Your task to perform on an android device: toggle pop-ups in chrome Image 0: 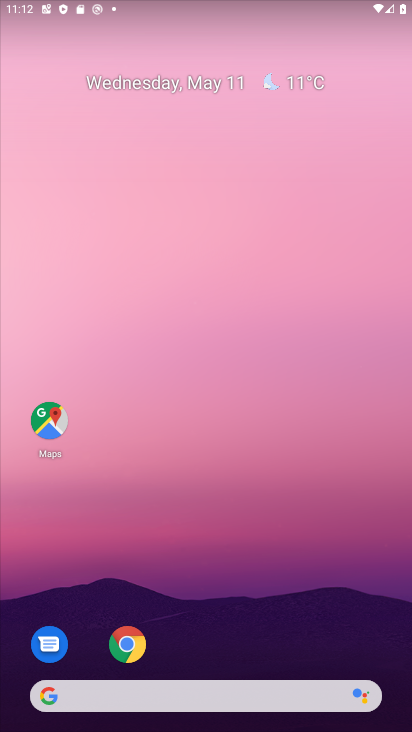
Step 0: click (207, 49)
Your task to perform on an android device: toggle pop-ups in chrome Image 1: 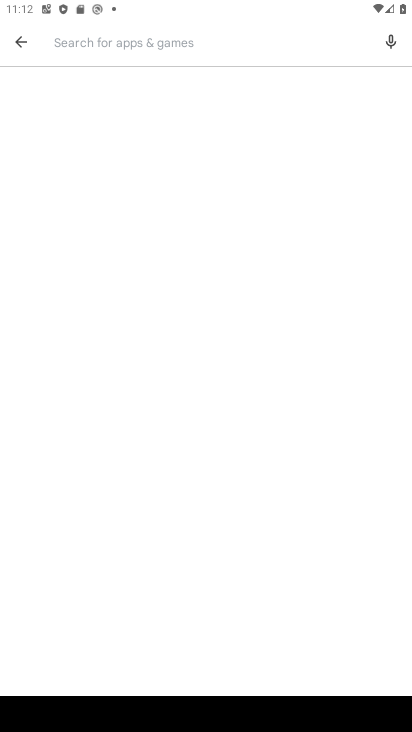
Step 1: press home button
Your task to perform on an android device: toggle pop-ups in chrome Image 2: 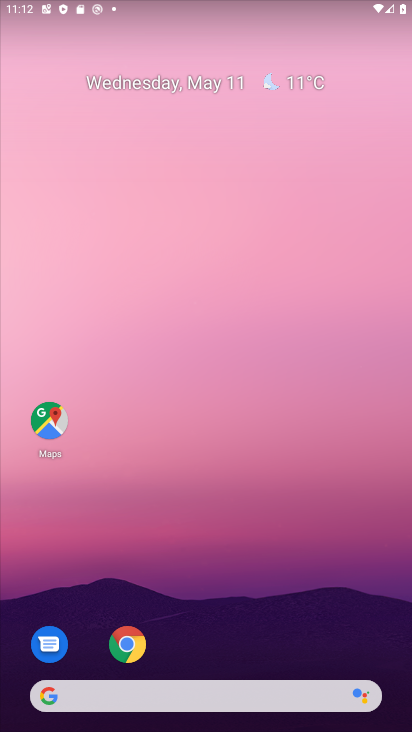
Step 2: click (124, 642)
Your task to perform on an android device: toggle pop-ups in chrome Image 3: 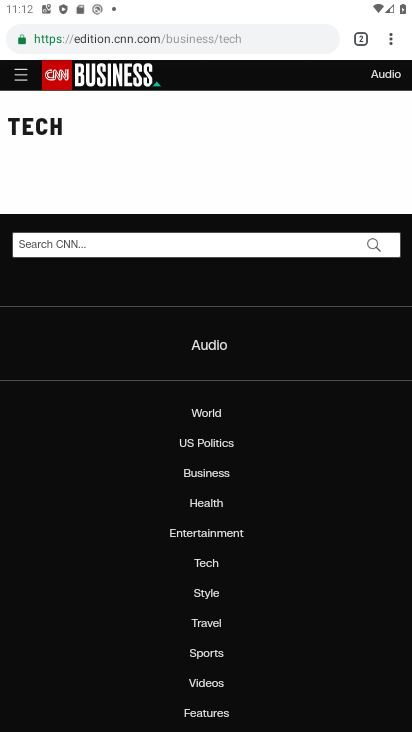
Step 3: click (391, 39)
Your task to perform on an android device: toggle pop-ups in chrome Image 4: 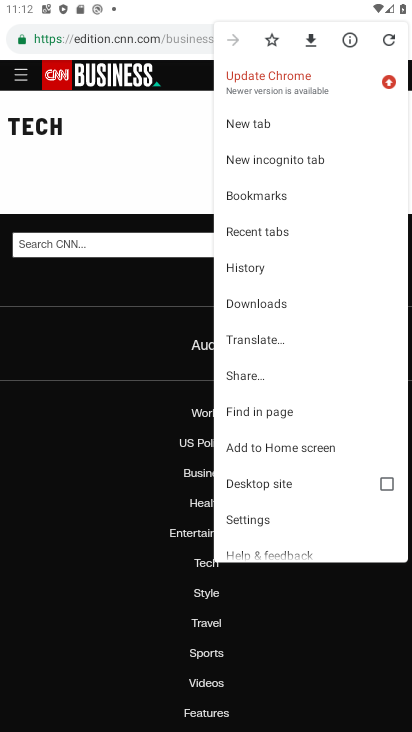
Step 4: click (276, 515)
Your task to perform on an android device: toggle pop-ups in chrome Image 5: 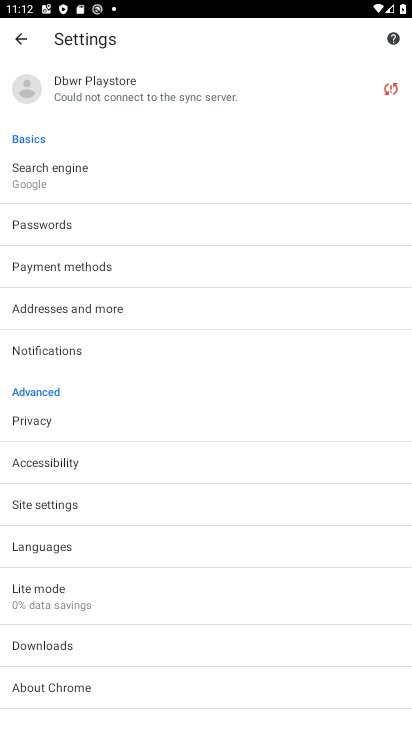
Step 5: click (84, 495)
Your task to perform on an android device: toggle pop-ups in chrome Image 6: 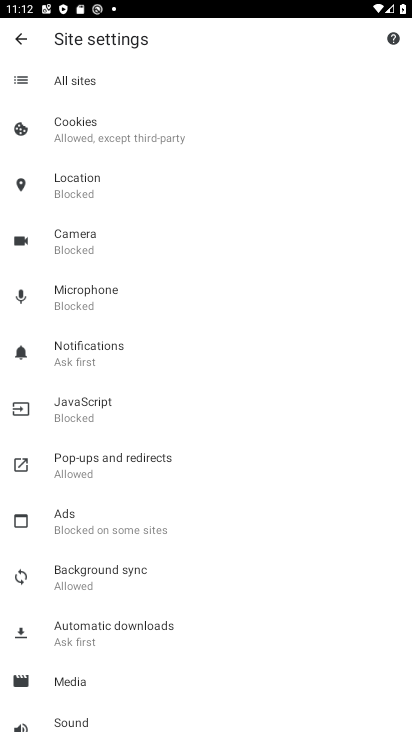
Step 6: click (139, 461)
Your task to perform on an android device: toggle pop-ups in chrome Image 7: 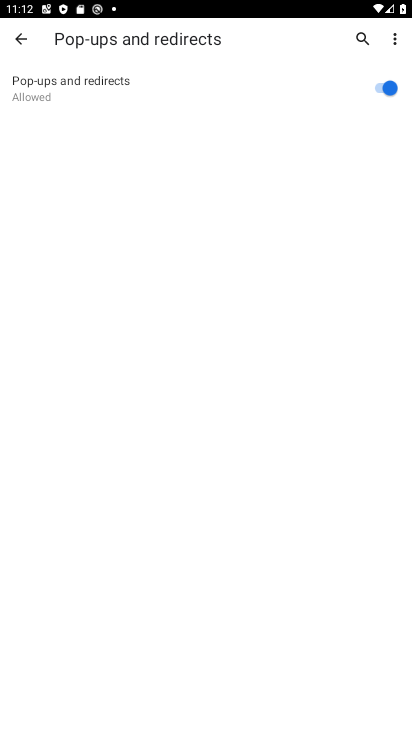
Step 7: click (381, 82)
Your task to perform on an android device: toggle pop-ups in chrome Image 8: 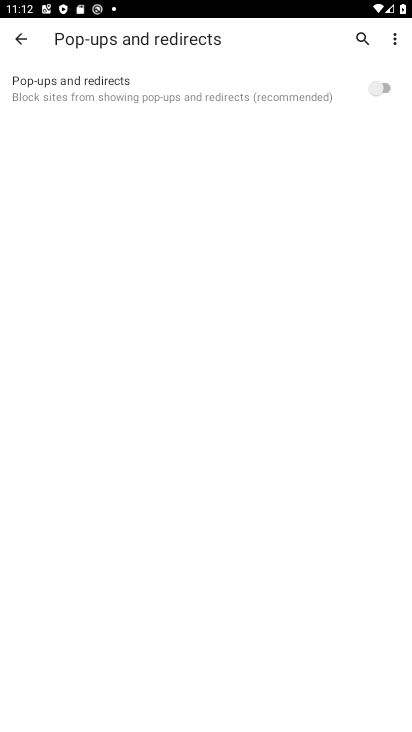
Step 8: task complete